Your task to perform on an android device: turn on javascript in the chrome app Image 0: 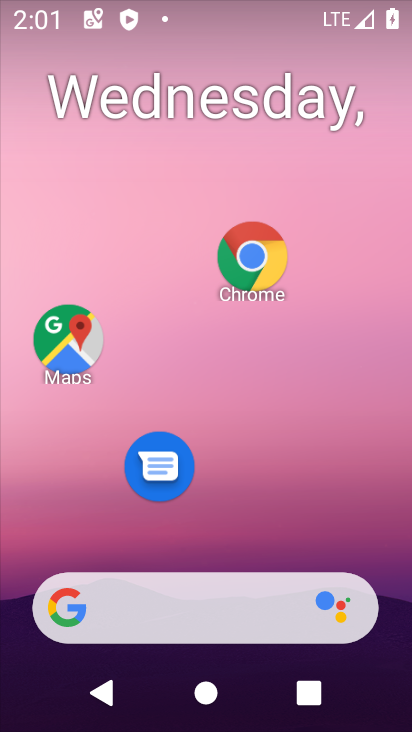
Step 0: click (251, 266)
Your task to perform on an android device: turn on javascript in the chrome app Image 1: 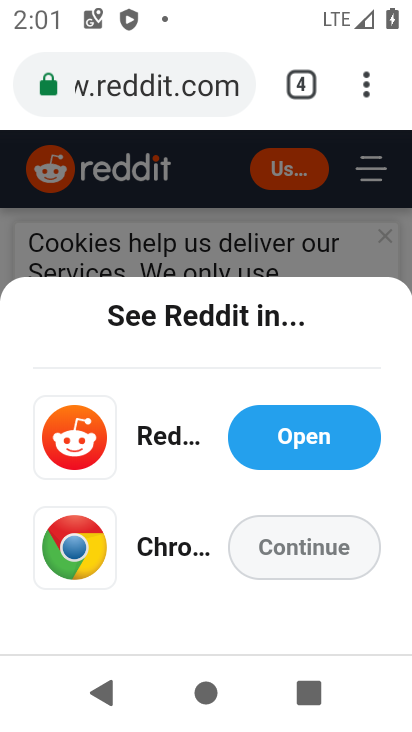
Step 1: drag from (356, 85) to (160, 534)
Your task to perform on an android device: turn on javascript in the chrome app Image 2: 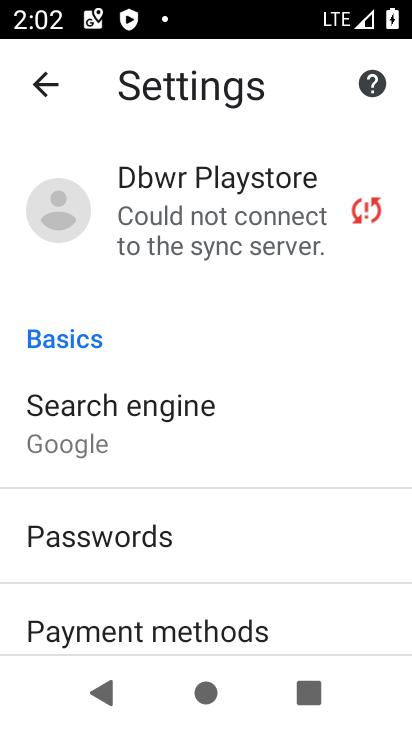
Step 2: drag from (311, 596) to (340, 266)
Your task to perform on an android device: turn on javascript in the chrome app Image 3: 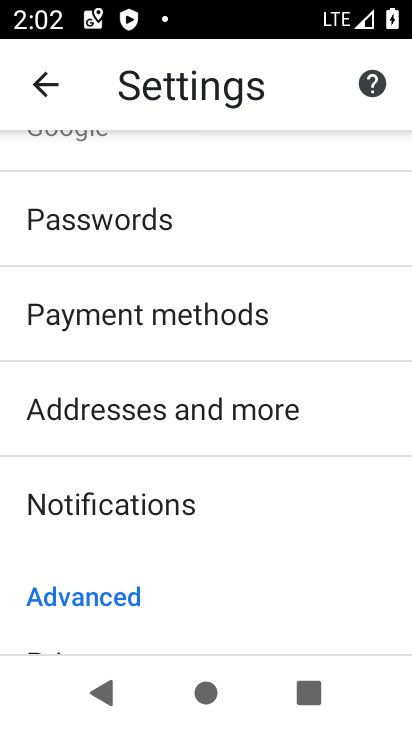
Step 3: drag from (281, 520) to (342, 207)
Your task to perform on an android device: turn on javascript in the chrome app Image 4: 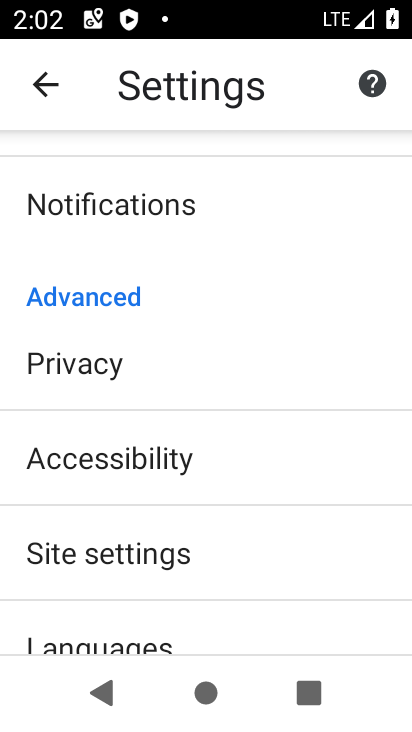
Step 4: click (157, 538)
Your task to perform on an android device: turn on javascript in the chrome app Image 5: 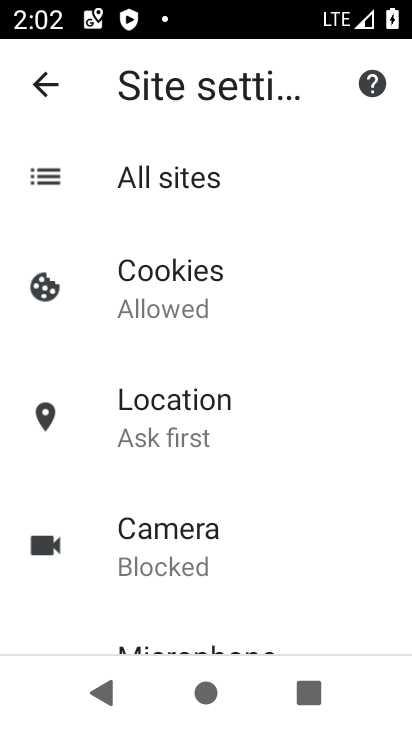
Step 5: drag from (273, 602) to (285, 364)
Your task to perform on an android device: turn on javascript in the chrome app Image 6: 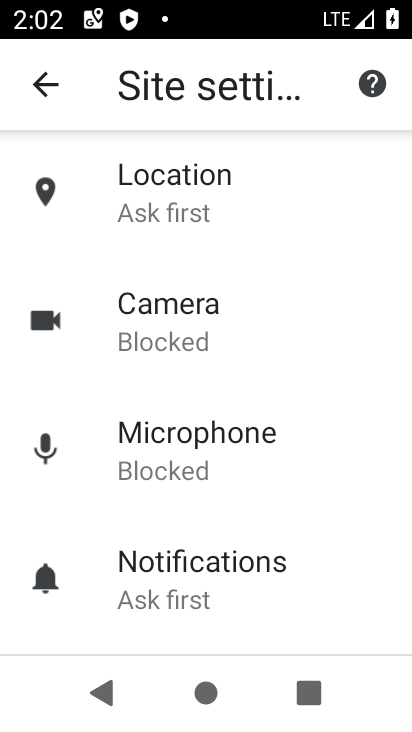
Step 6: drag from (299, 506) to (322, 210)
Your task to perform on an android device: turn on javascript in the chrome app Image 7: 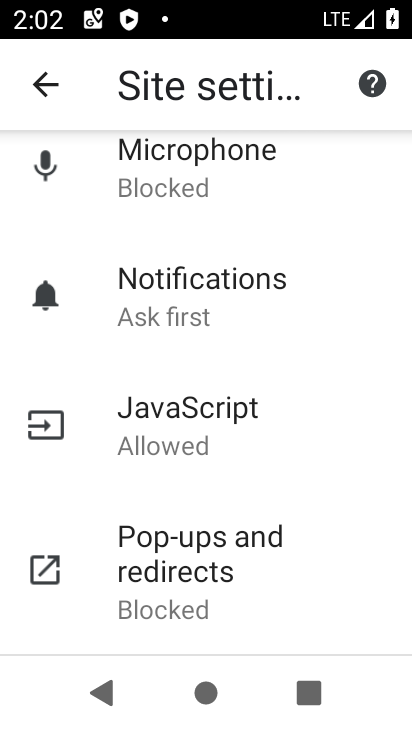
Step 7: click (155, 432)
Your task to perform on an android device: turn on javascript in the chrome app Image 8: 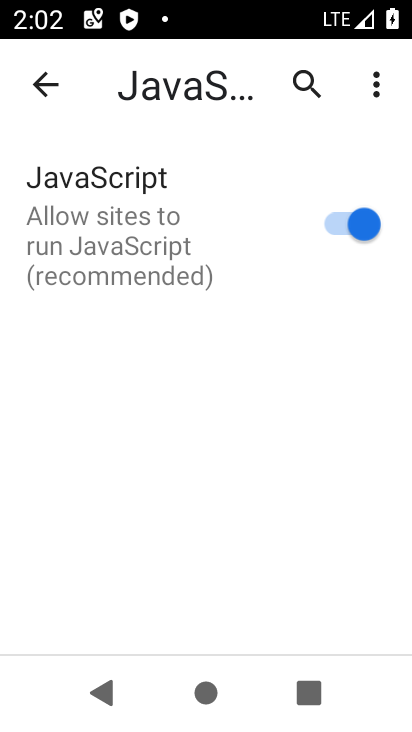
Step 8: task complete